Your task to perform on an android device: move an email to a new category in the gmail app Image 0: 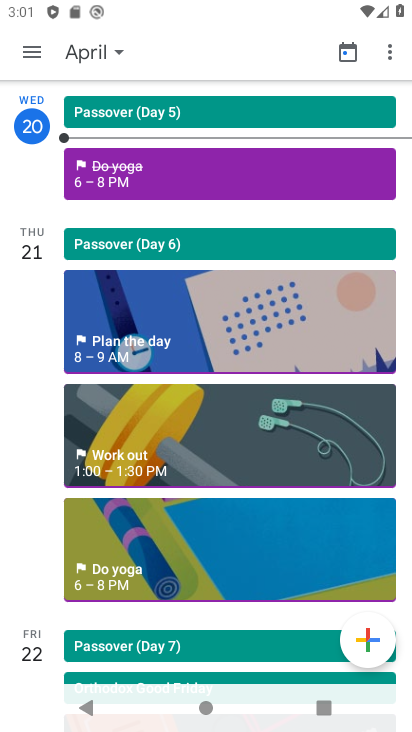
Step 0: press home button
Your task to perform on an android device: move an email to a new category in the gmail app Image 1: 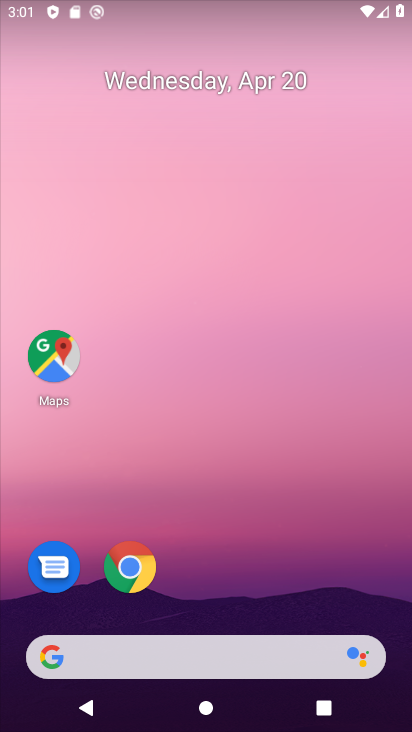
Step 1: drag from (207, 523) to (395, 2)
Your task to perform on an android device: move an email to a new category in the gmail app Image 2: 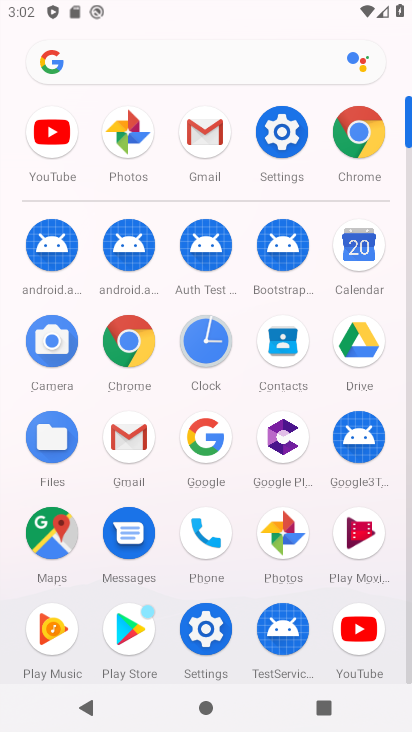
Step 2: click (125, 440)
Your task to perform on an android device: move an email to a new category in the gmail app Image 3: 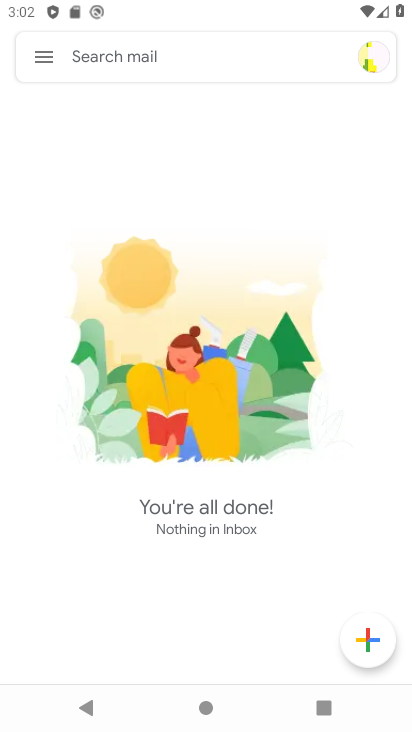
Step 3: click (48, 56)
Your task to perform on an android device: move an email to a new category in the gmail app Image 4: 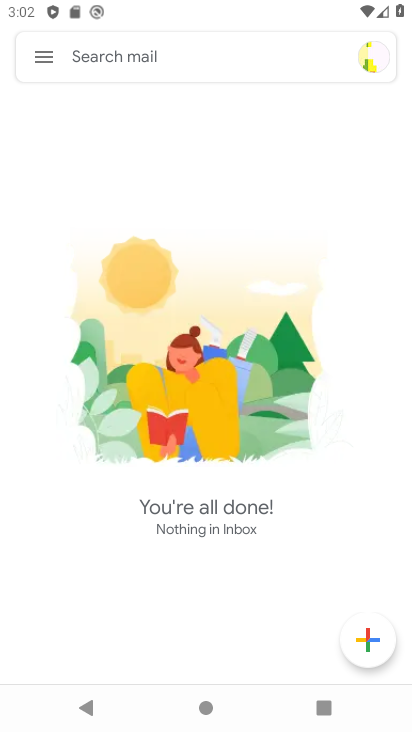
Step 4: click (32, 56)
Your task to perform on an android device: move an email to a new category in the gmail app Image 5: 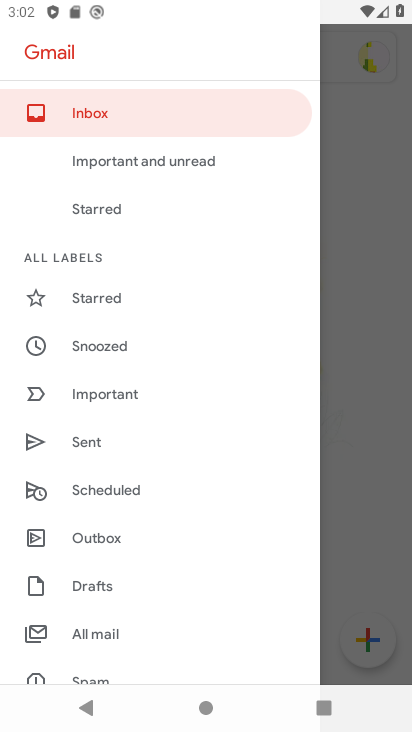
Step 5: click (83, 639)
Your task to perform on an android device: move an email to a new category in the gmail app Image 6: 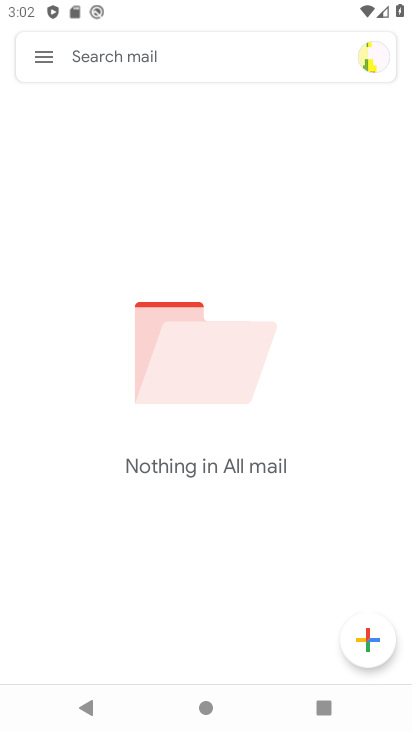
Step 6: task complete